Your task to perform on an android device: Toggle the flashlight Image 0: 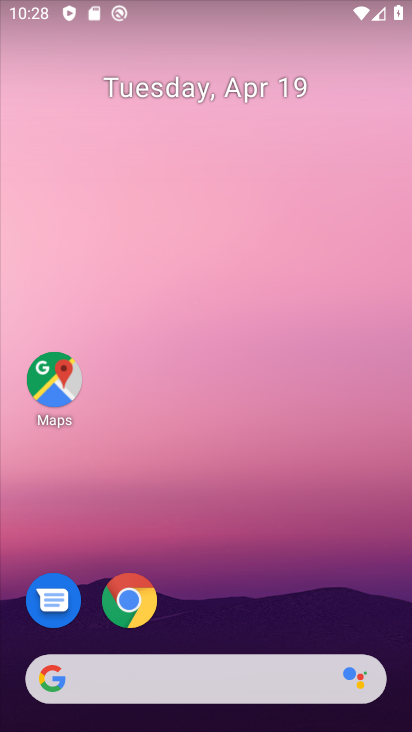
Step 0: click (256, 513)
Your task to perform on an android device: Toggle the flashlight Image 1: 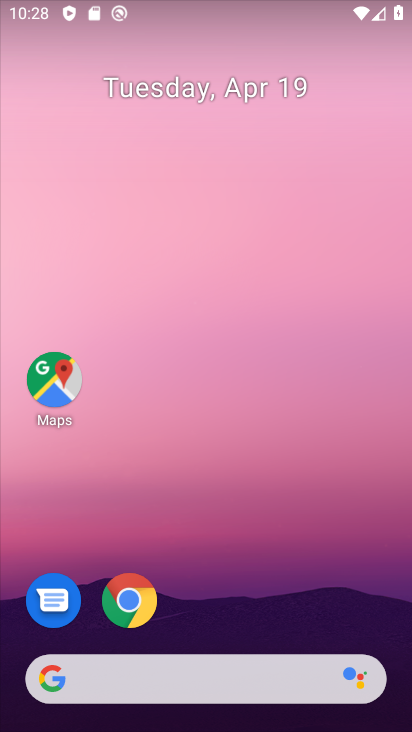
Step 1: drag from (240, 343) to (284, 3)
Your task to perform on an android device: Toggle the flashlight Image 2: 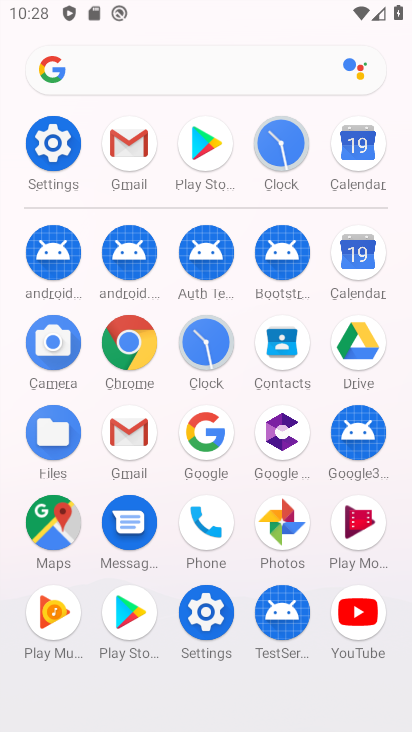
Step 2: click (121, 133)
Your task to perform on an android device: Toggle the flashlight Image 3: 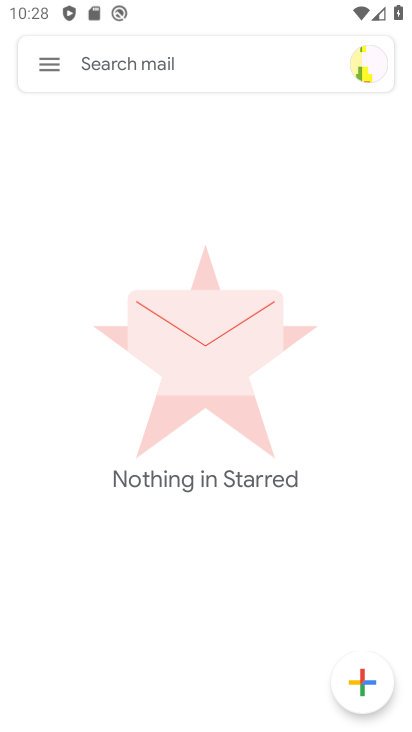
Step 3: press home button
Your task to perform on an android device: Toggle the flashlight Image 4: 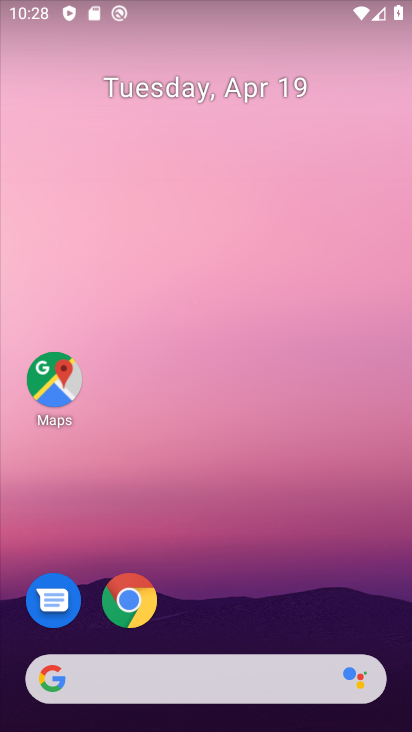
Step 4: drag from (203, 608) to (296, 0)
Your task to perform on an android device: Toggle the flashlight Image 5: 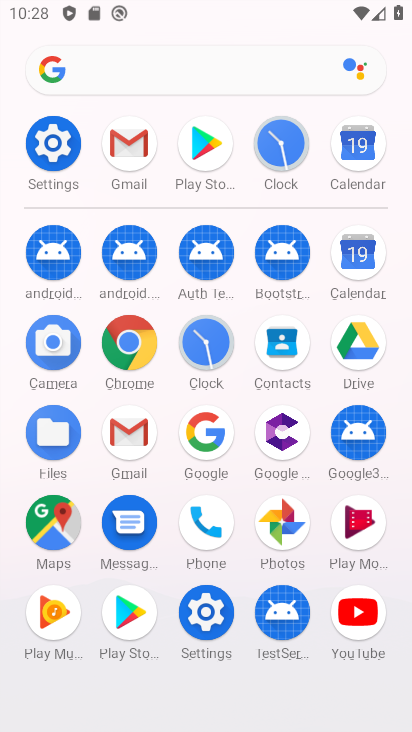
Step 5: click (58, 195)
Your task to perform on an android device: Toggle the flashlight Image 6: 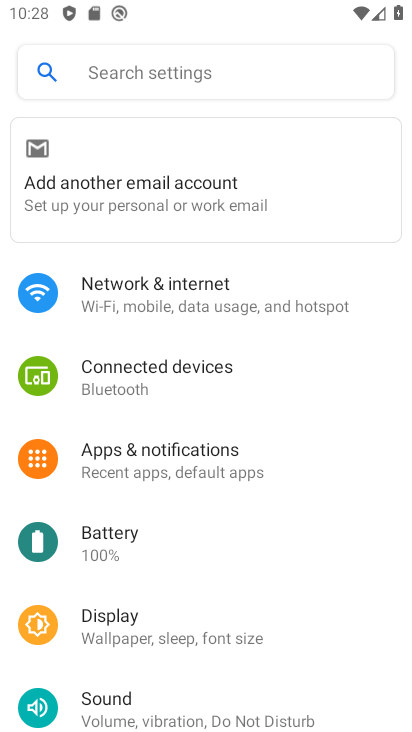
Step 6: click (207, 53)
Your task to perform on an android device: Toggle the flashlight Image 7: 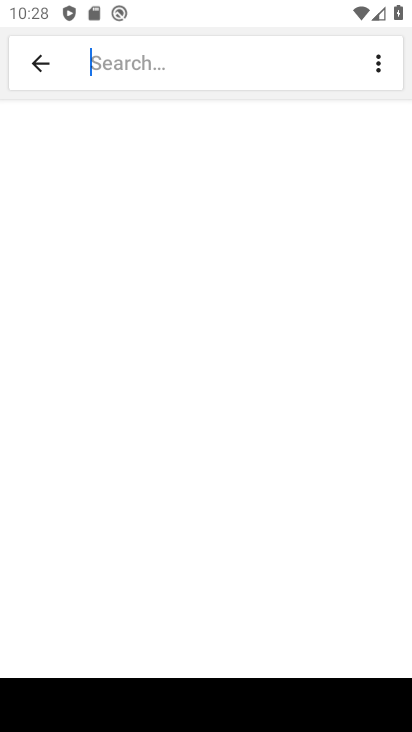
Step 7: type "flashlight"
Your task to perform on an android device: Toggle the flashlight Image 8: 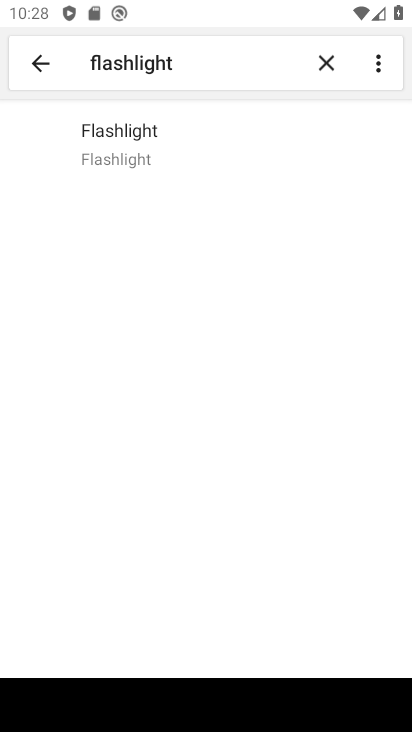
Step 8: click (139, 154)
Your task to perform on an android device: Toggle the flashlight Image 9: 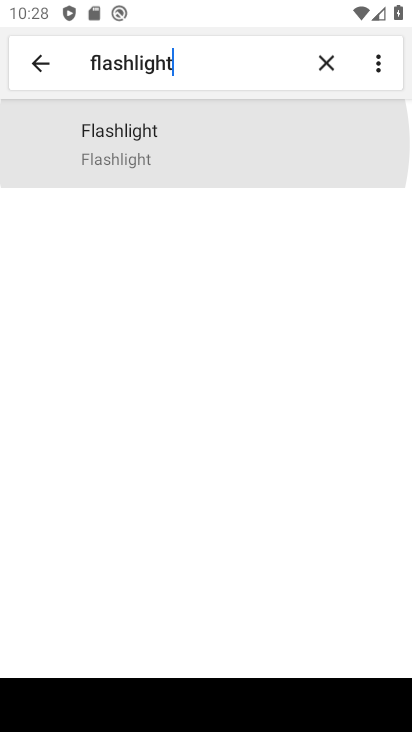
Step 9: click (139, 154)
Your task to perform on an android device: Toggle the flashlight Image 10: 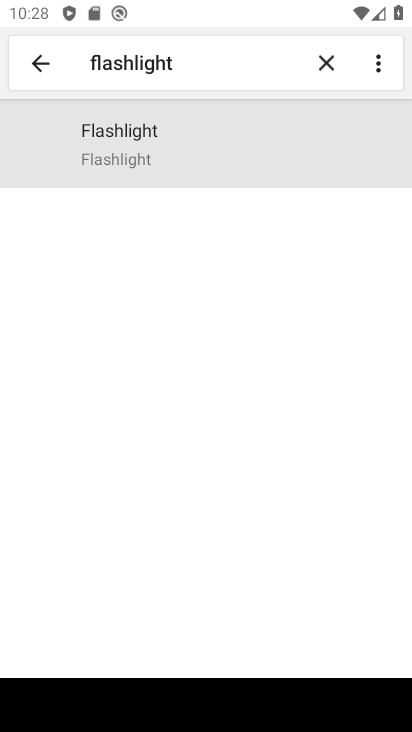
Step 10: click (140, 155)
Your task to perform on an android device: Toggle the flashlight Image 11: 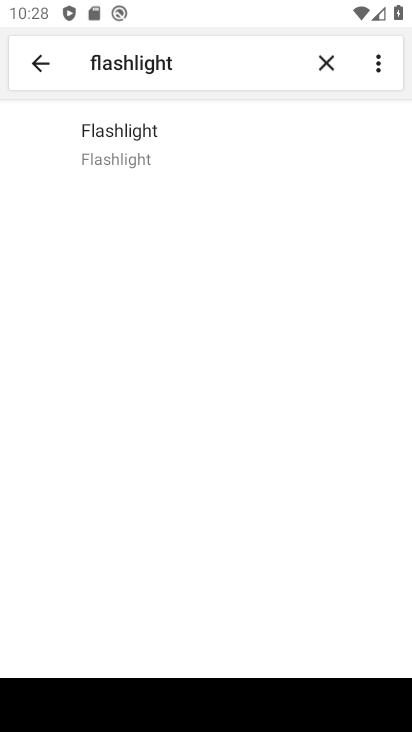
Step 11: task complete